Your task to perform on an android device: Search for bose quietcomfort 35 on bestbuy, select the first entry, add it to the cart, then select checkout. Image 0: 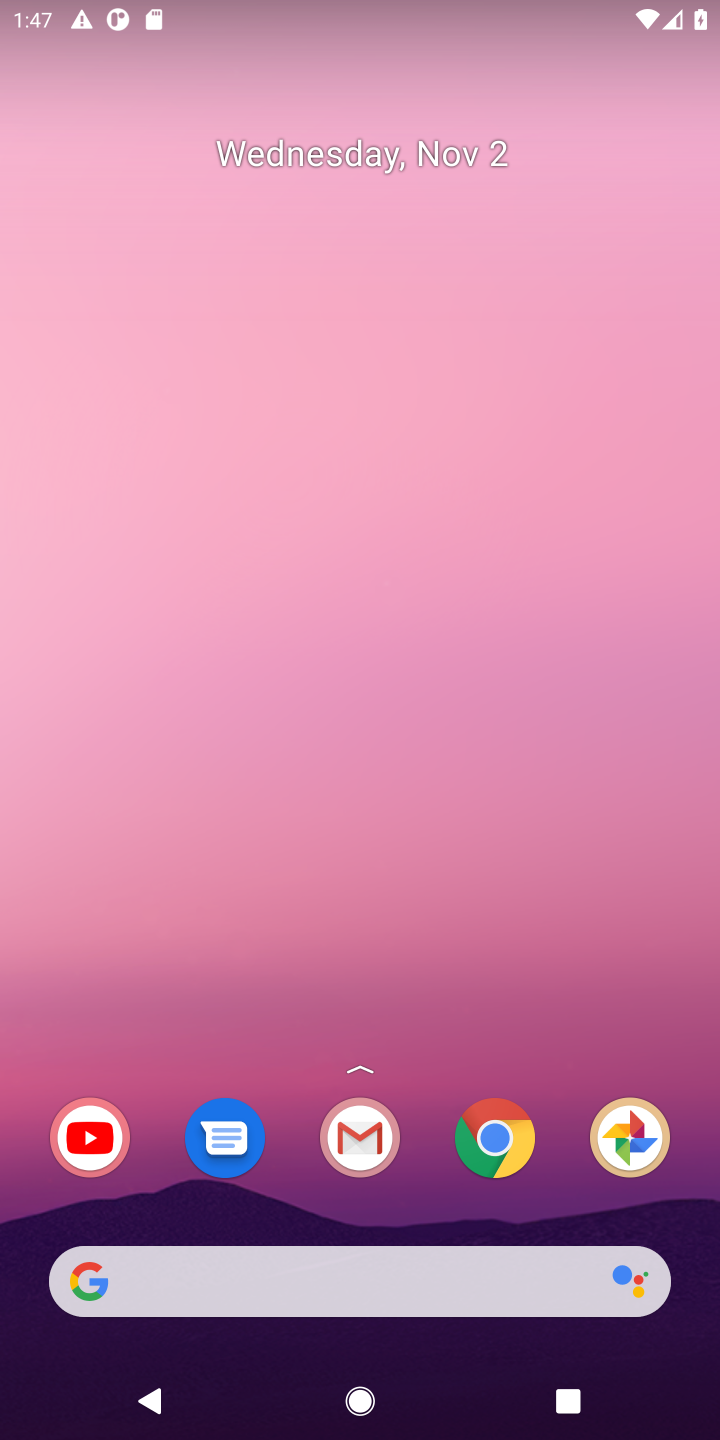
Step 0: press home button
Your task to perform on an android device: Search for bose quietcomfort 35 on bestbuy, select the first entry, add it to the cart, then select checkout. Image 1: 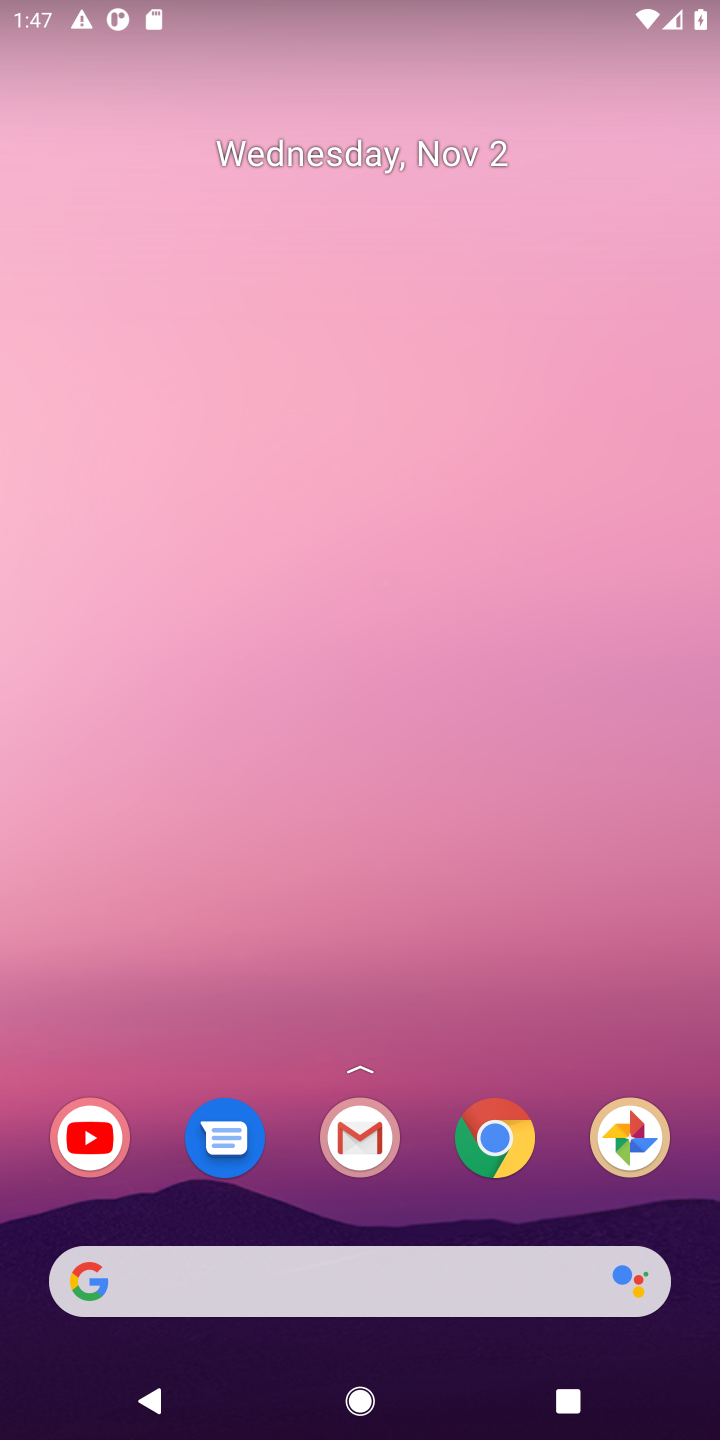
Step 1: click (177, 1283)
Your task to perform on an android device: Search for bose quietcomfort 35 on bestbuy, select the first entry, add it to the cart, then select checkout. Image 2: 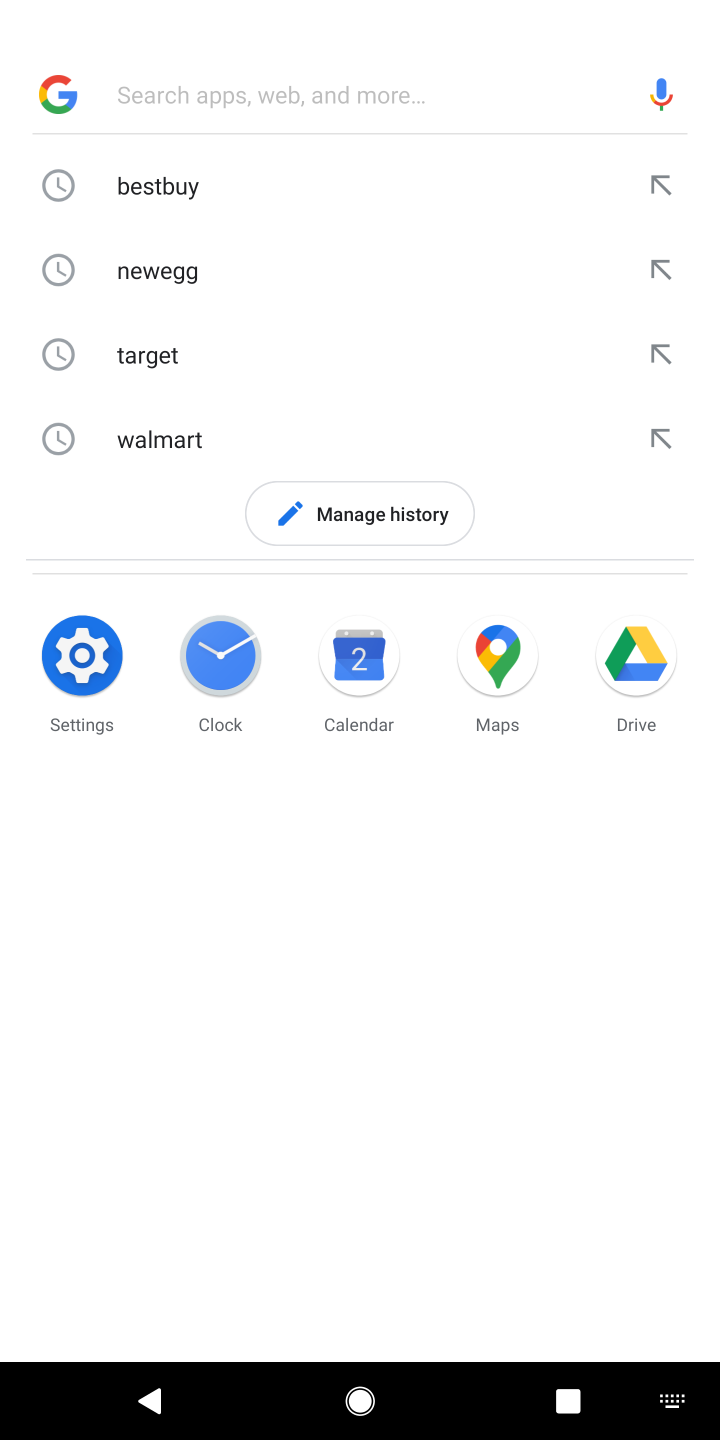
Step 2: type "bestbuy"
Your task to perform on an android device: Search for bose quietcomfort 35 on bestbuy, select the first entry, add it to the cart, then select checkout. Image 3: 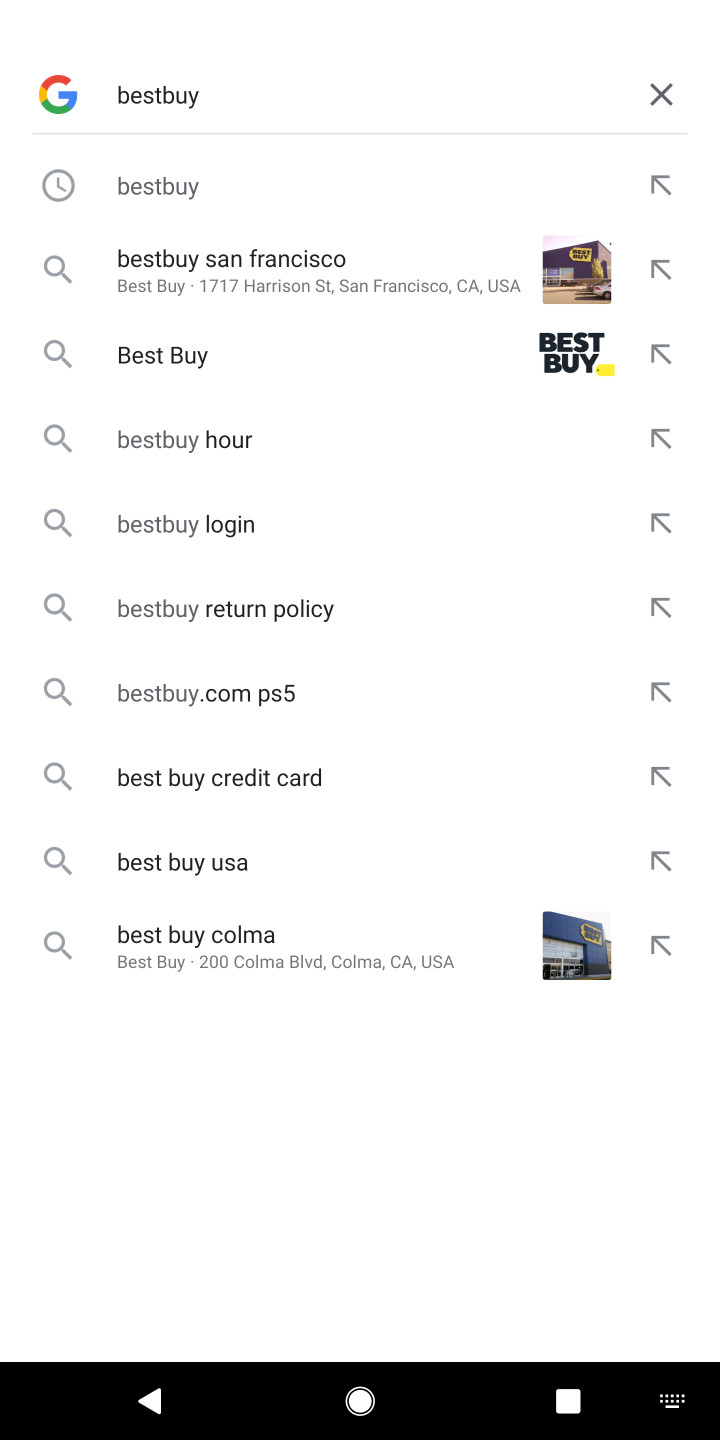
Step 3: press enter
Your task to perform on an android device: Search for bose quietcomfort 35 on bestbuy, select the first entry, add it to the cart, then select checkout. Image 4: 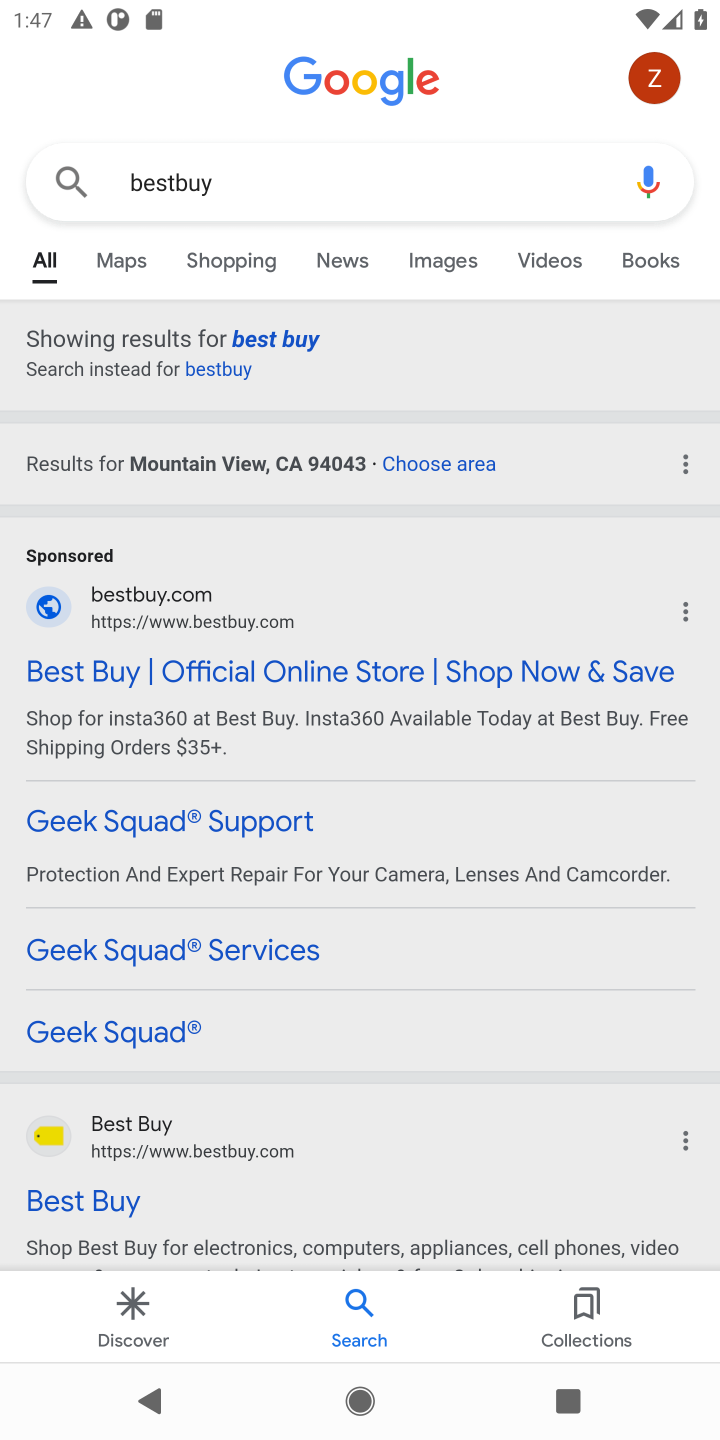
Step 4: click (329, 666)
Your task to perform on an android device: Search for bose quietcomfort 35 on bestbuy, select the first entry, add it to the cart, then select checkout. Image 5: 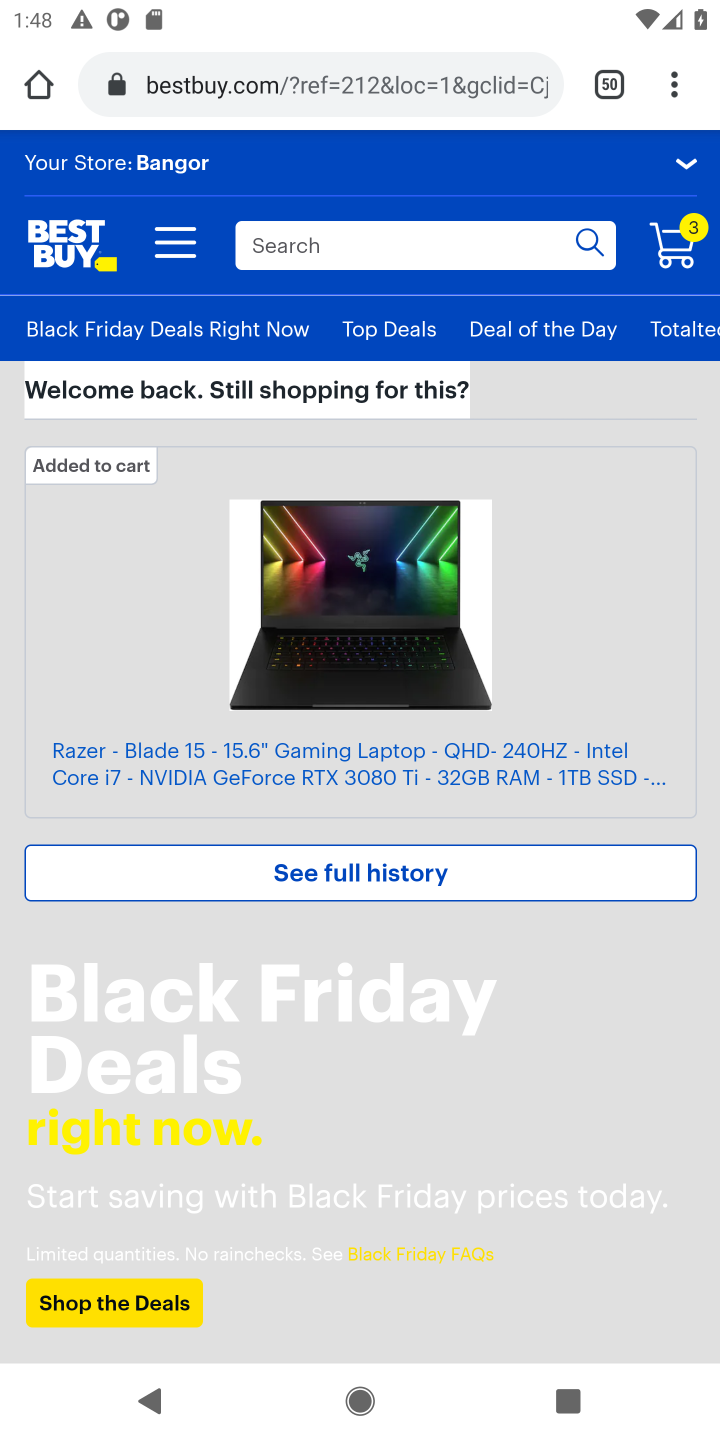
Step 5: click (329, 240)
Your task to perform on an android device: Search for bose quietcomfort 35 on bestbuy, select the first entry, add it to the cart, then select checkout. Image 6: 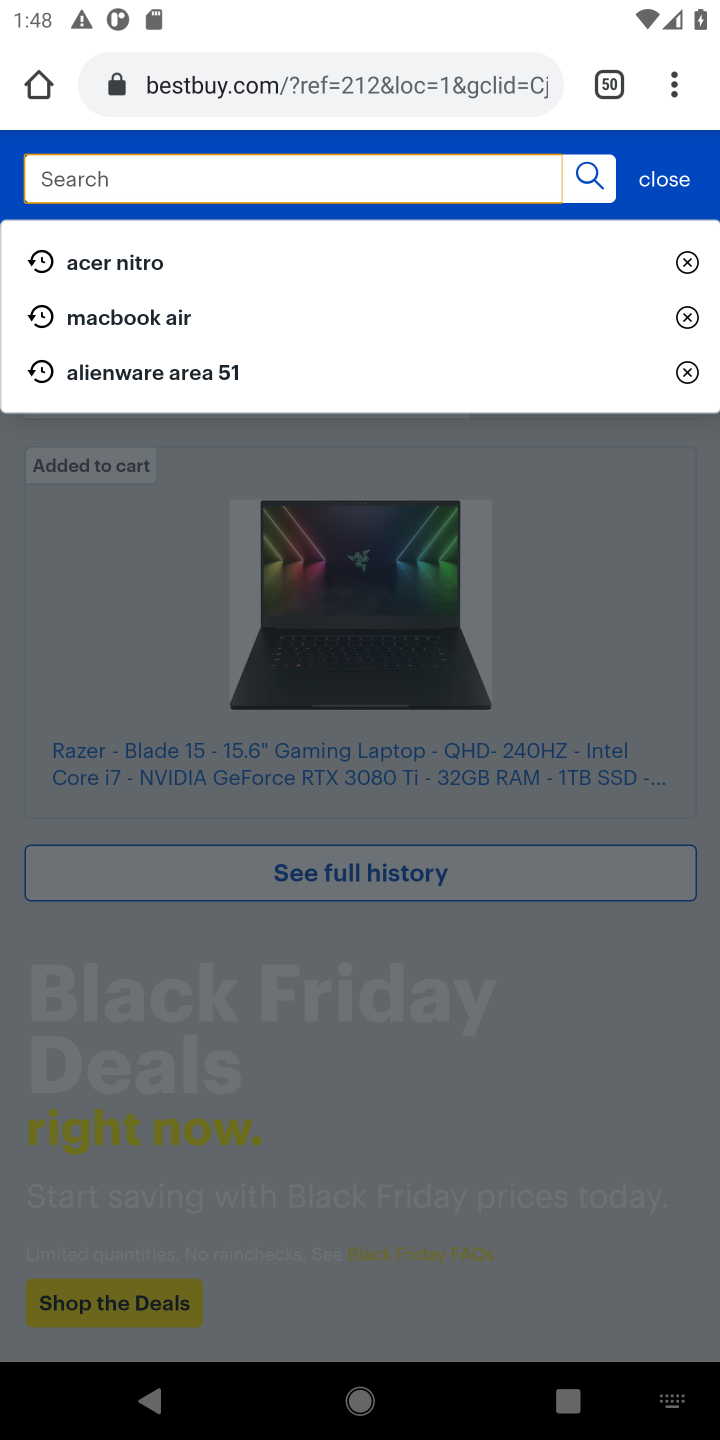
Step 6: type " bose quietcomfort 35 "
Your task to perform on an android device: Search for bose quietcomfort 35 on bestbuy, select the first entry, add it to the cart, then select checkout. Image 7: 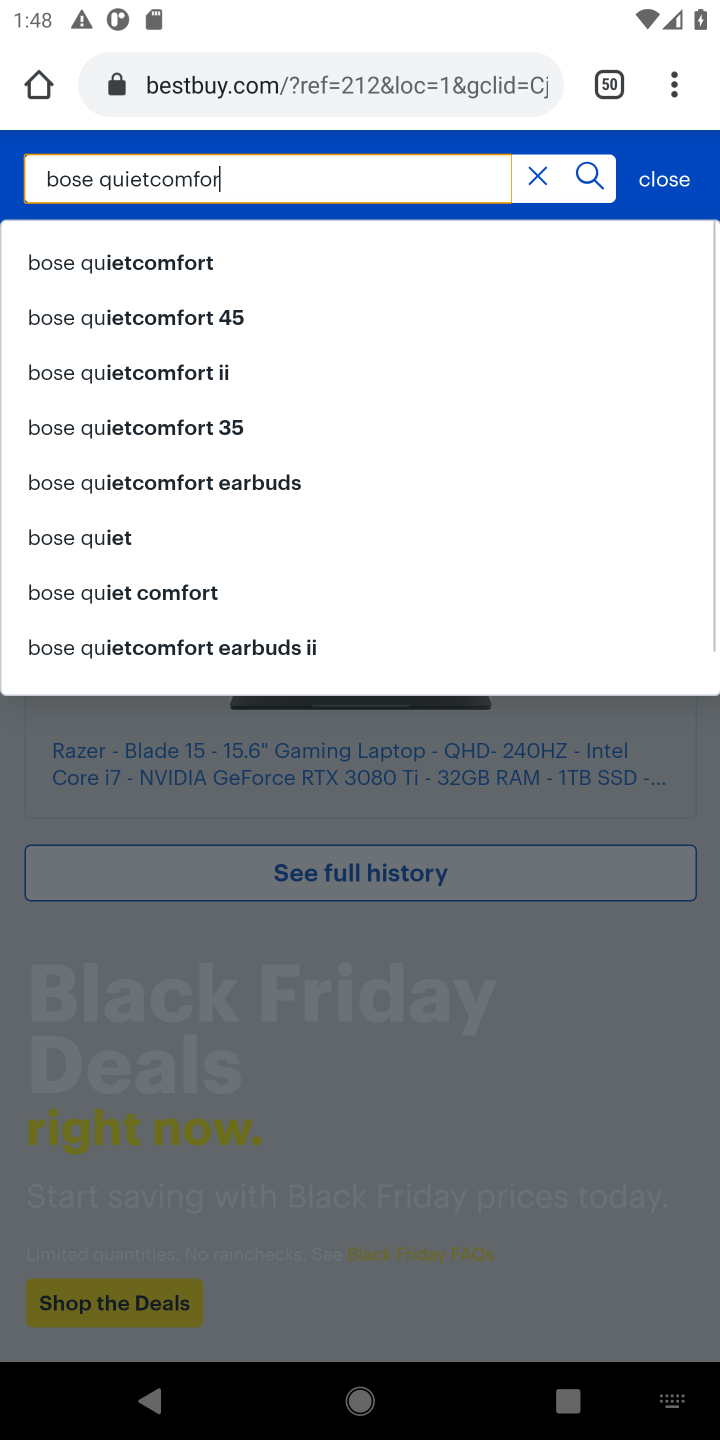
Step 7: press enter
Your task to perform on an android device: Search for bose quietcomfort 35 on bestbuy, select the first entry, add it to the cart, then select checkout. Image 8: 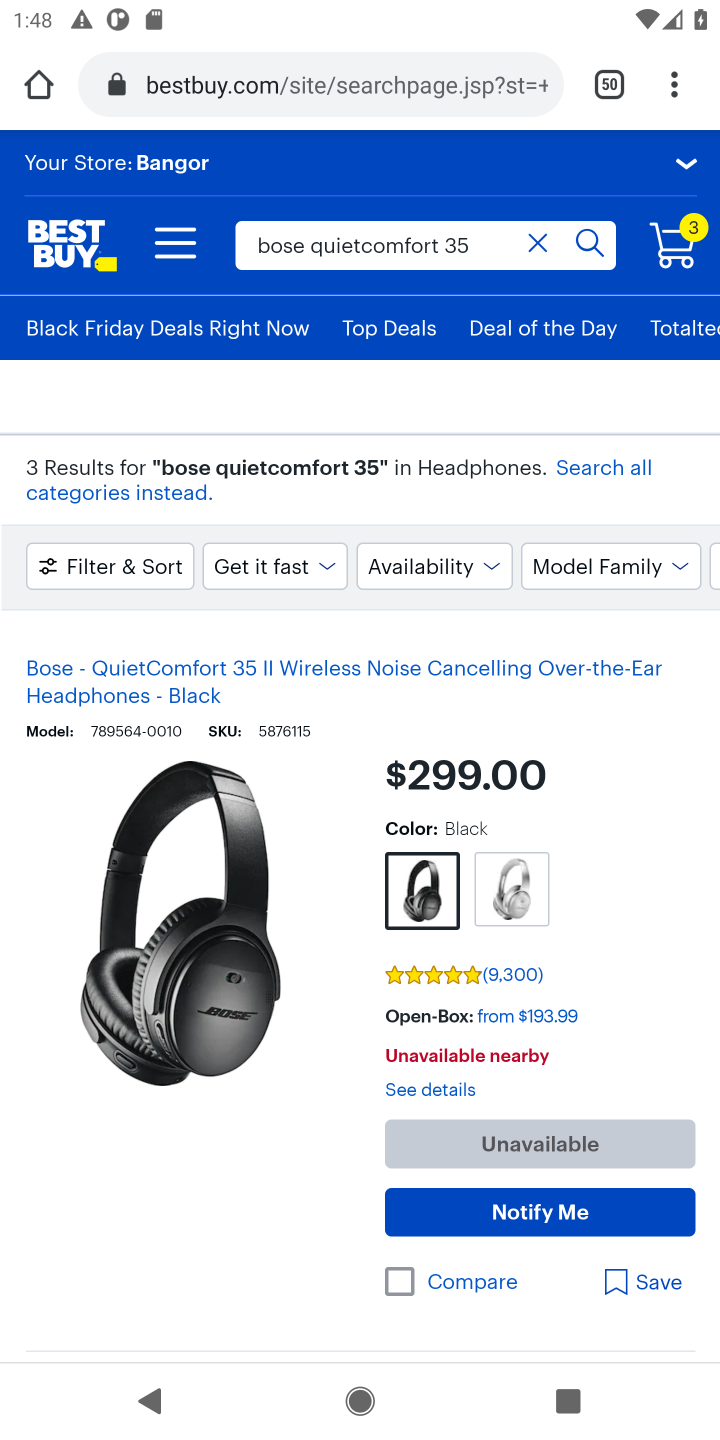
Step 8: drag from (247, 1000) to (249, 694)
Your task to perform on an android device: Search for bose quietcomfort 35 on bestbuy, select the first entry, add it to the cart, then select checkout. Image 9: 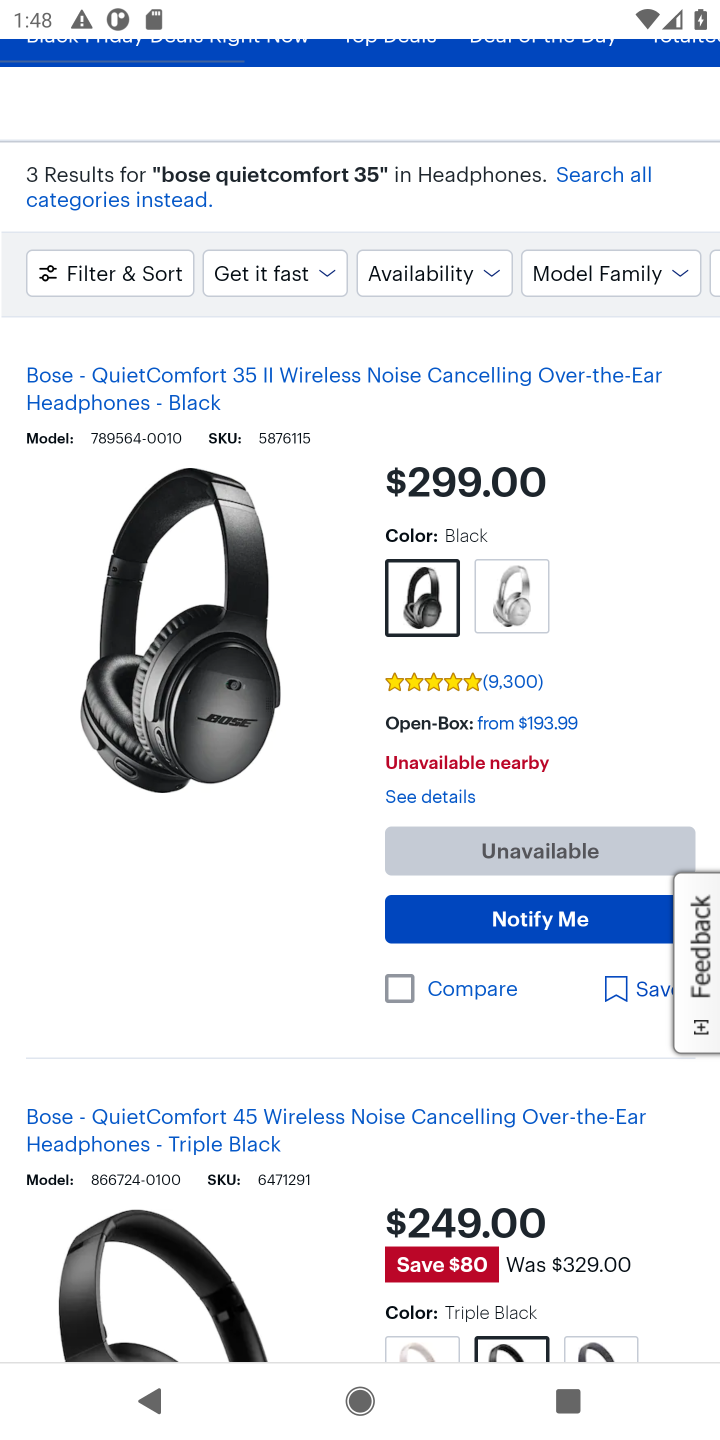
Step 9: drag from (397, 1230) to (409, 656)
Your task to perform on an android device: Search for bose quietcomfort 35 on bestbuy, select the first entry, add it to the cart, then select checkout. Image 10: 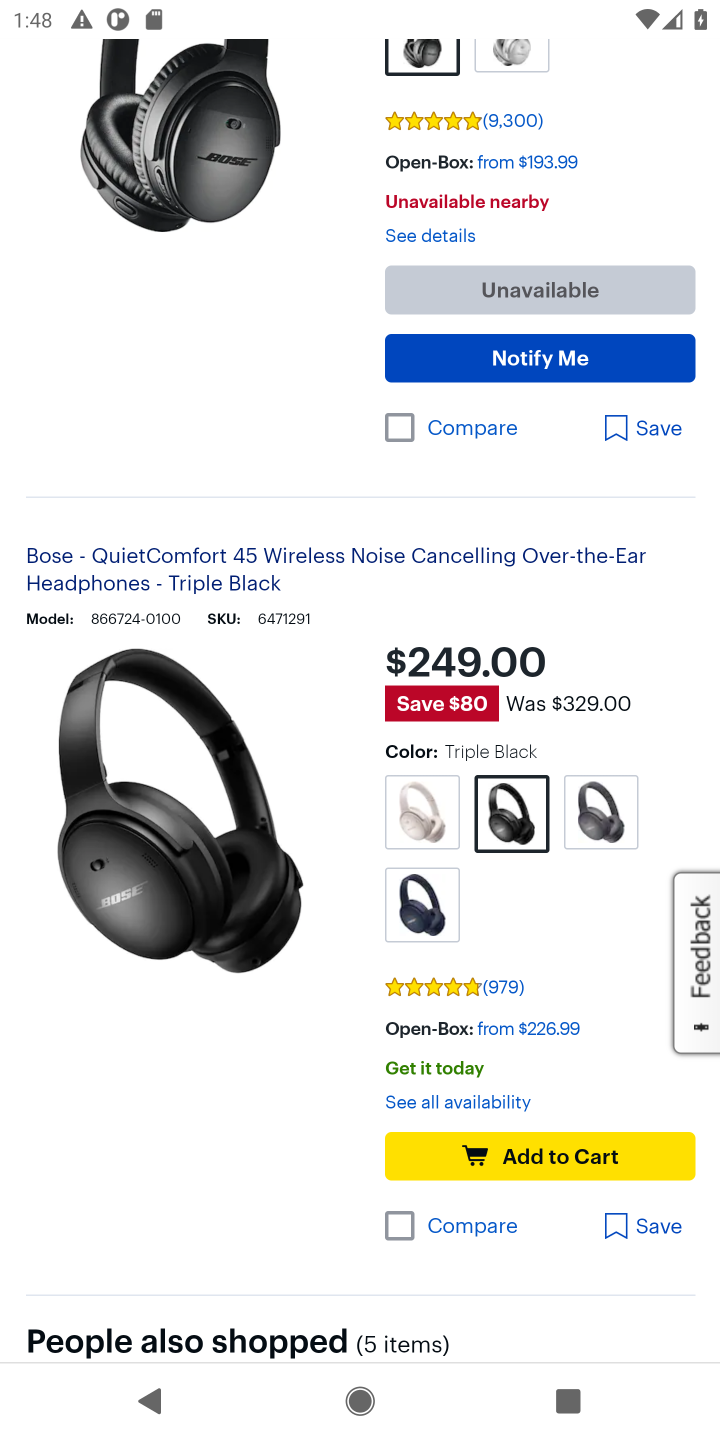
Step 10: drag from (268, 1149) to (332, 545)
Your task to perform on an android device: Search for bose quietcomfort 35 on bestbuy, select the first entry, add it to the cart, then select checkout. Image 11: 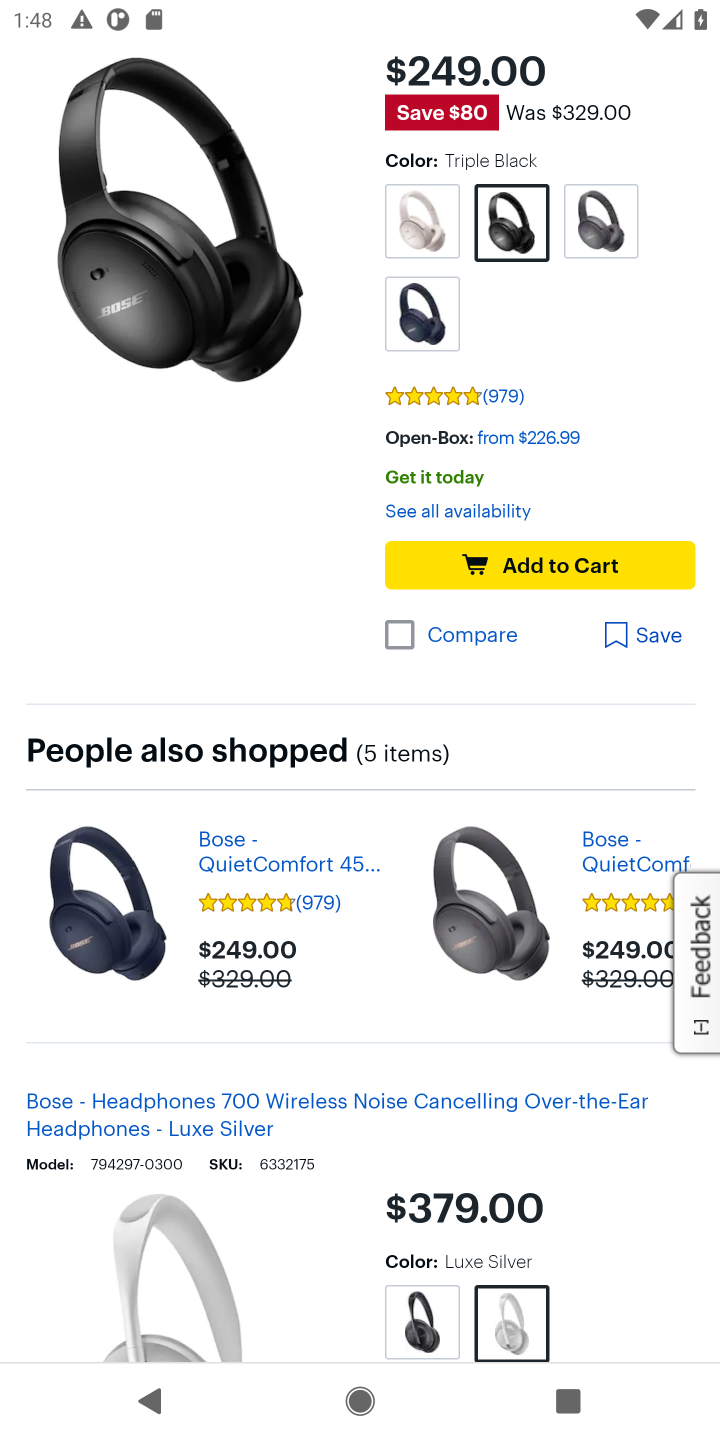
Step 11: click (587, 567)
Your task to perform on an android device: Search for bose quietcomfort 35 on bestbuy, select the first entry, add it to the cart, then select checkout. Image 12: 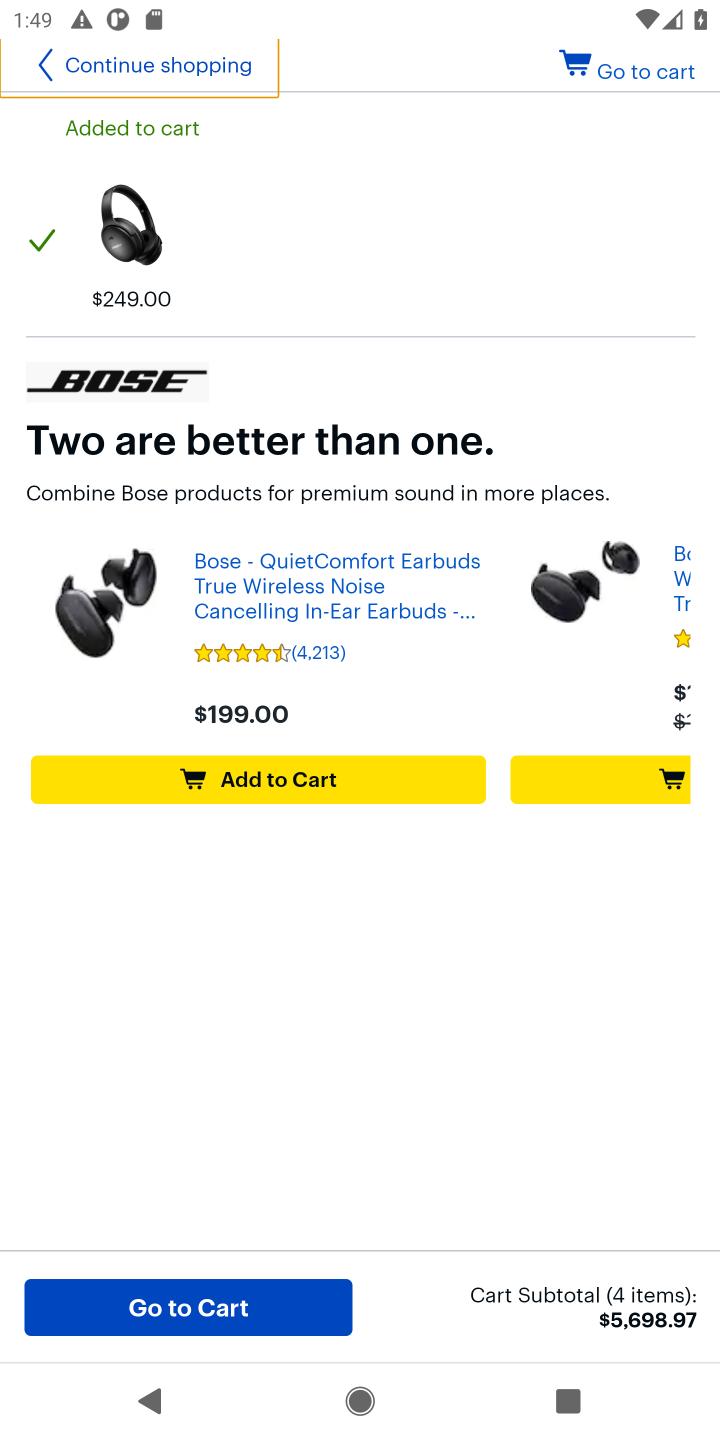
Step 12: click (169, 1309)
Your task to perform on an android device: Search for bose quietcomfort 35 on bestbuy, select the first entry, add it to the cart, then select checkout. Image 13: 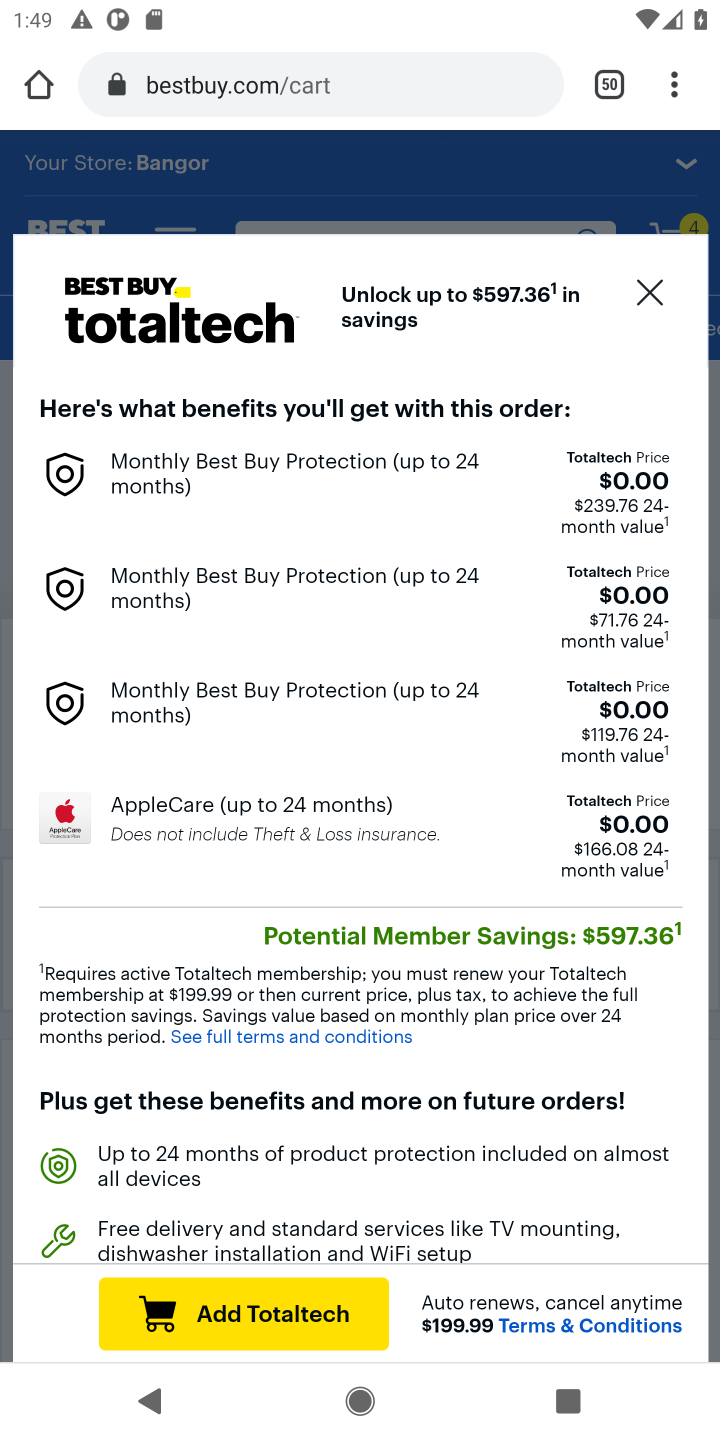
Step 13: click (645, 293)
Your task to perform on an android device: Search for bose quietcomfort 35 on bestbuy, select the first entry, add it to the cart, then select checkout. Image 14: 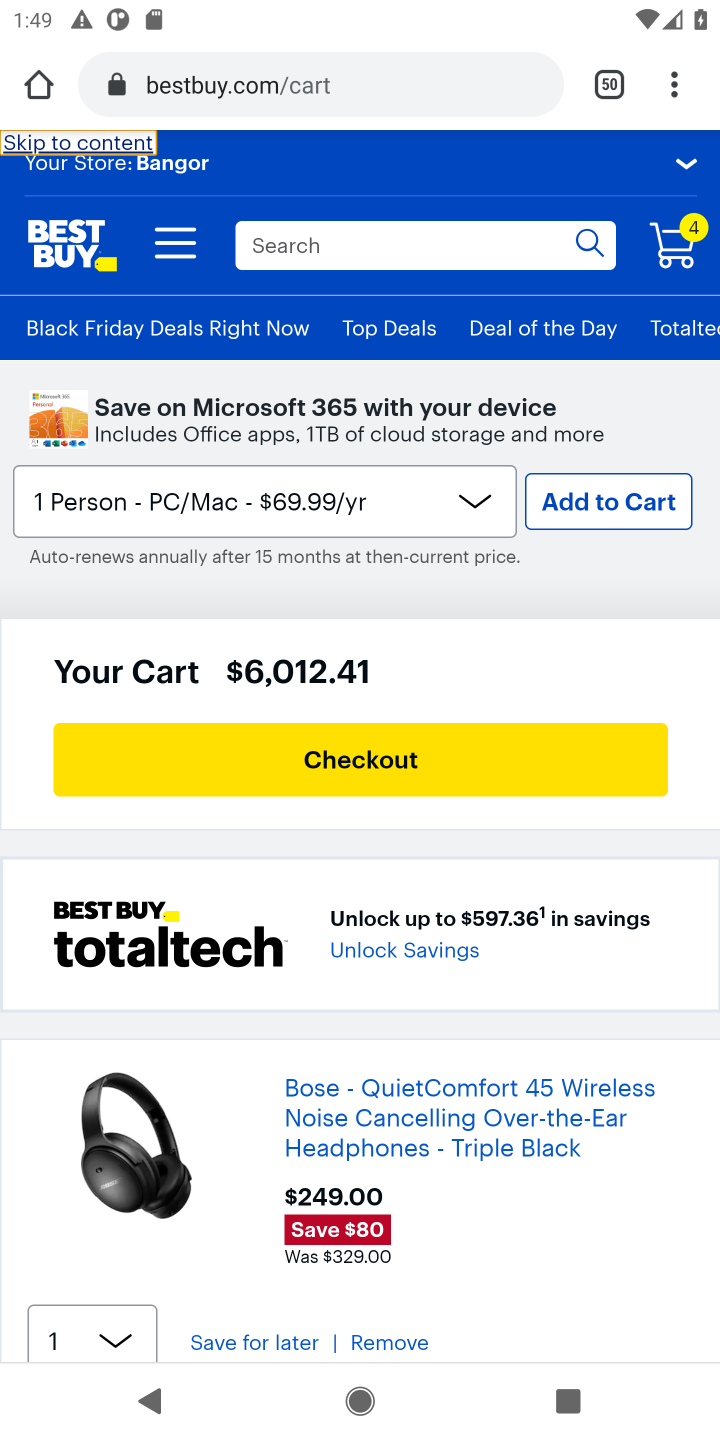
Step 14: click (436, 752)
Your task to perform on an android device: Search for bose quietcomfort 35 on bestbuy, select the first entry, add it to the cart, then select checkout. Image 15: 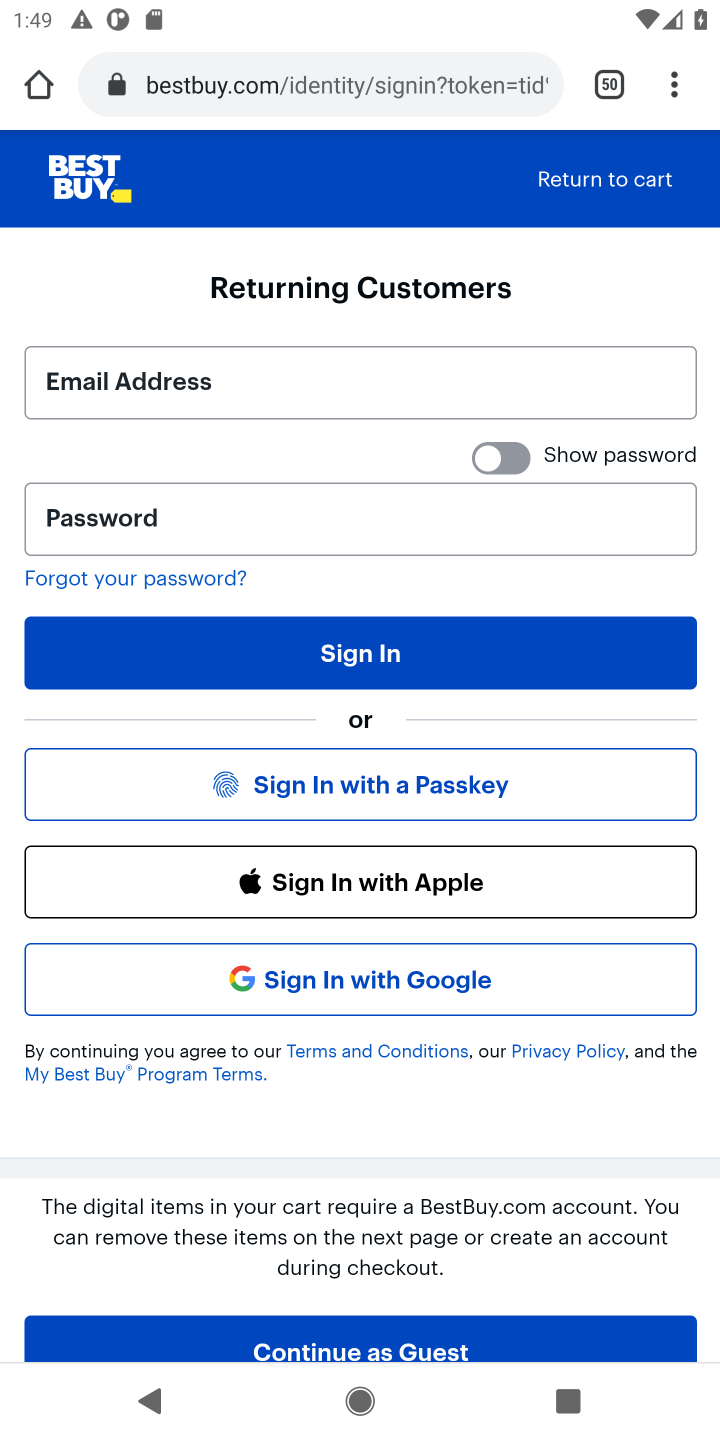
Step 15: task complete